Your task to perform on an android device: Show me the alarms in the clock app Image 0: 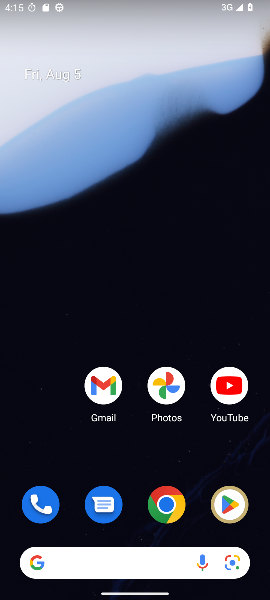
Step 0: drag from (14, 560) to (142, 3)
Your task to perform on an android device: Show me the alarms in the clock app Image 1: 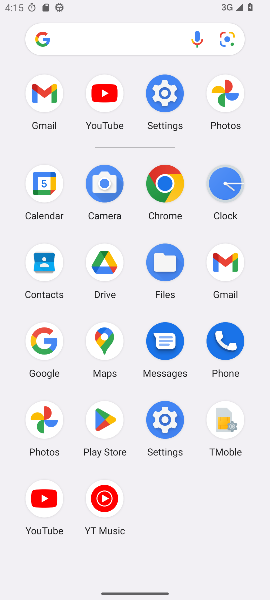
Step 1: click (221, 199)
Your task to perform on an android device: Show me the alarms in the clock app Image 2: 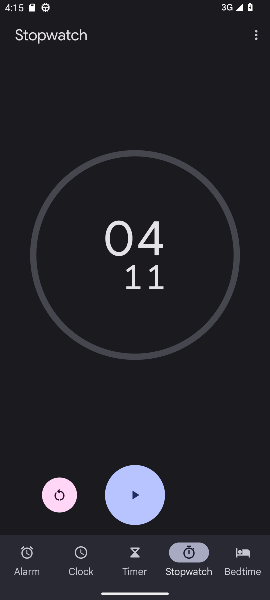
Step 2: click (35, 569)
Your task to perform on an android device: Show me the alarms in the clock app Image 3: 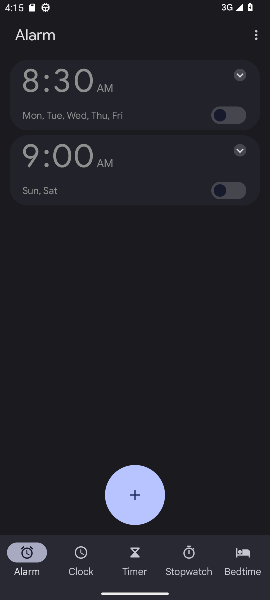
Step 3: click (220, 115)
Your task to perform on an android device: Show me the alarms in the clock app Image 4: 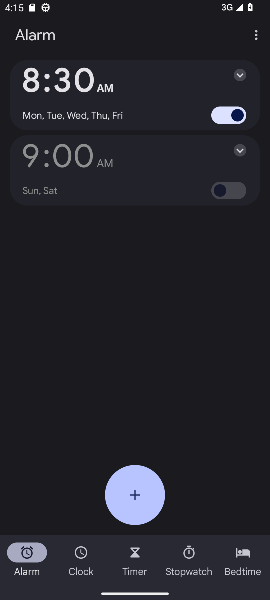
Step 4: task complete